Your task to perform on an android device: Open Android settings Image 0: 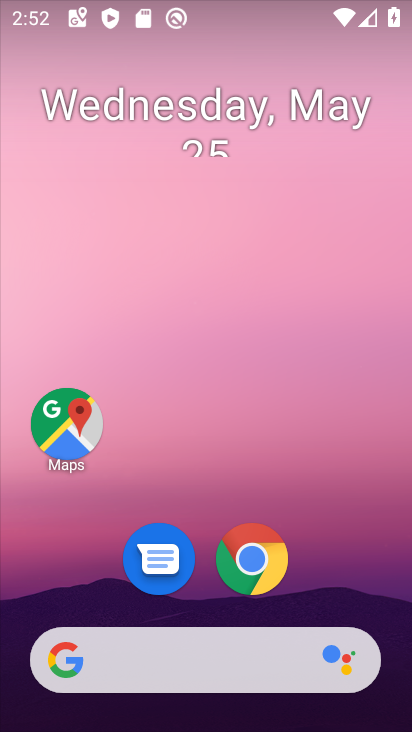
Step 0: drag from (201, 598) to (261, 111)
Your task to perform on an android device: Open Android settings Image 1: 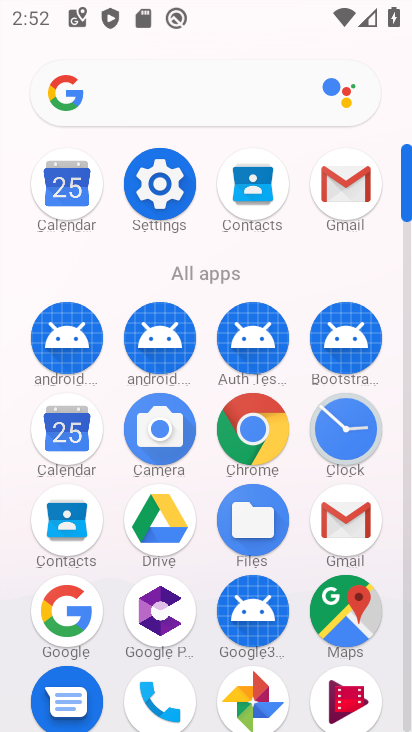
Step 1: click (163, 177)
Your task to perform on an android device: Open Android settings Image 2: 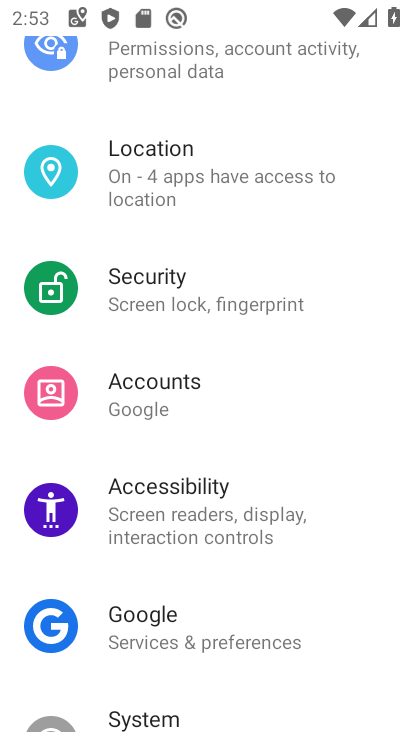
Step 2: drag from (216, 205) to (216, 731)
Your task to perform on an android device: Open Android settings Image 3: 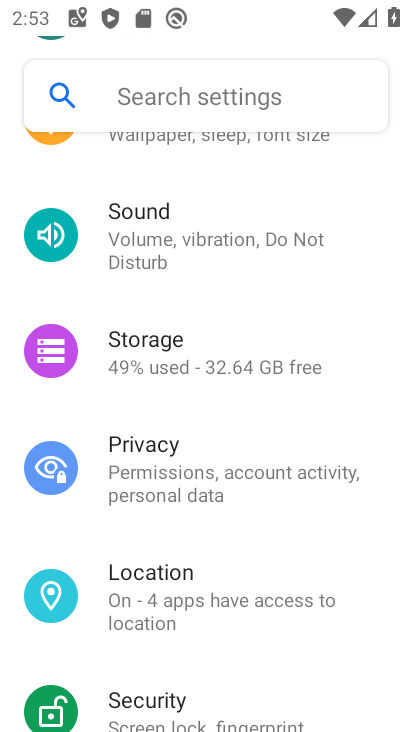
Step 3: drag from (221, 682) to (282, 63)
Your task to perform on an android device: Open Android settings Image 4: 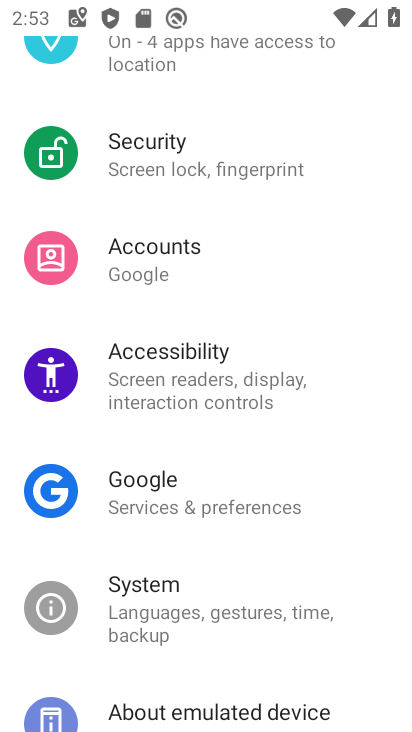
Step 4: drag from (216, 689) to (227, 92)
Your task to perform on an android device: Open Android settings Image 5: 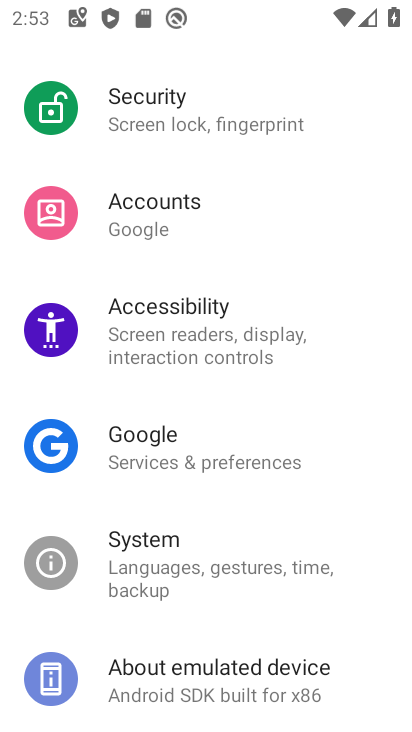
Step 5: click (332, 686)
Your task to perform on an android device: Open Android settings Image 6: 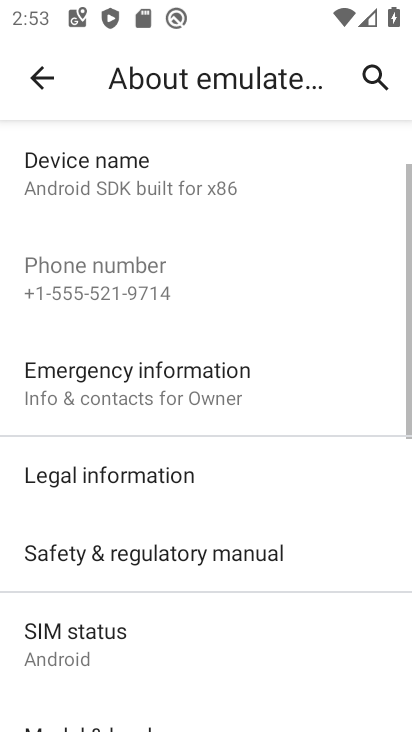
Step 6: drag from (224, 693) to (241, 147)
Your task to perform on an android device: Open Android settings Image 7: 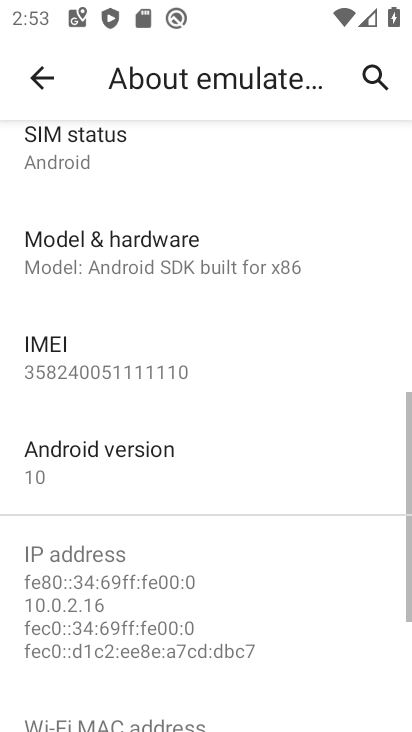
Step 7: click (114, 471)
Your task to perform on an android device: Open Android settings Image 8: 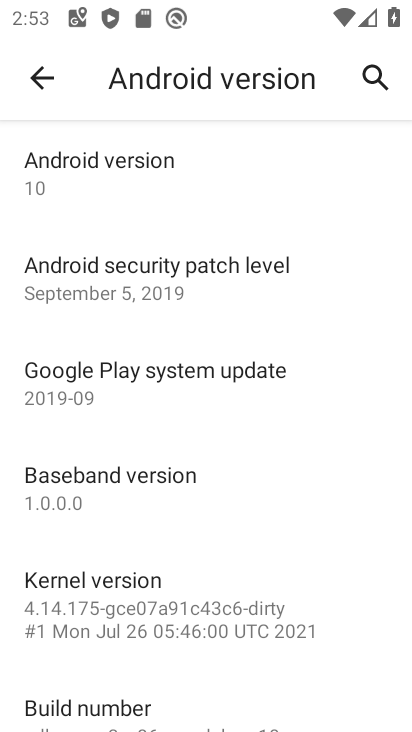
Step 8: task complete